Your task to perform on an android device: turn off notifications in google photos Image 0: 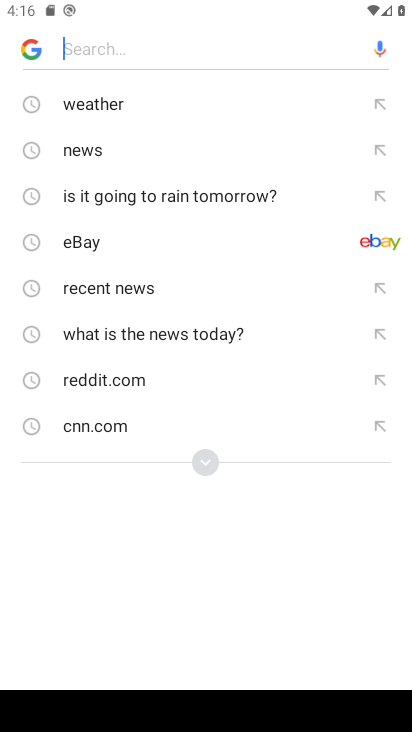
Step 0: press back button
Your task to perform on an android device: turn off notifications in google photos Image 1: 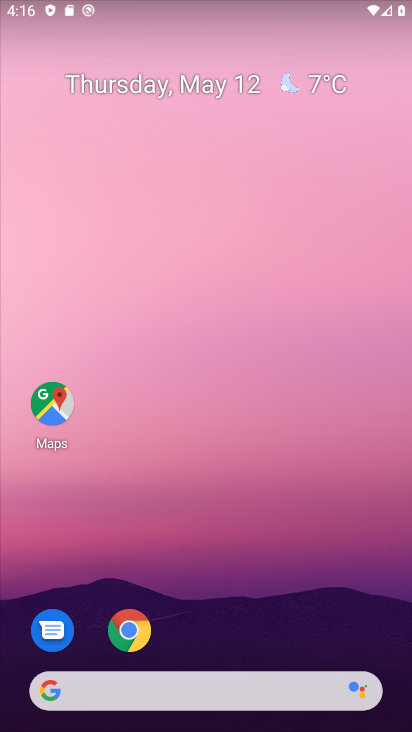
Step 1: drag from (180, 659) to (371, 57)
Your task to perform on an android device: turn off notifications in google photos Image 2: 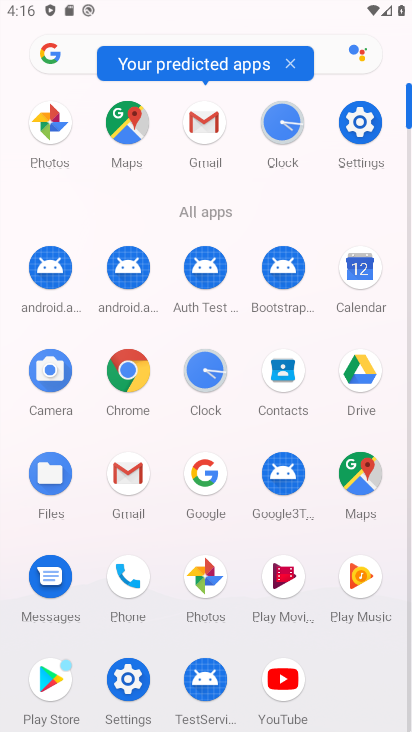
Step 2: click (195, 582)
Your task to perform on an android device: turn off notifications in google photos Image 3: 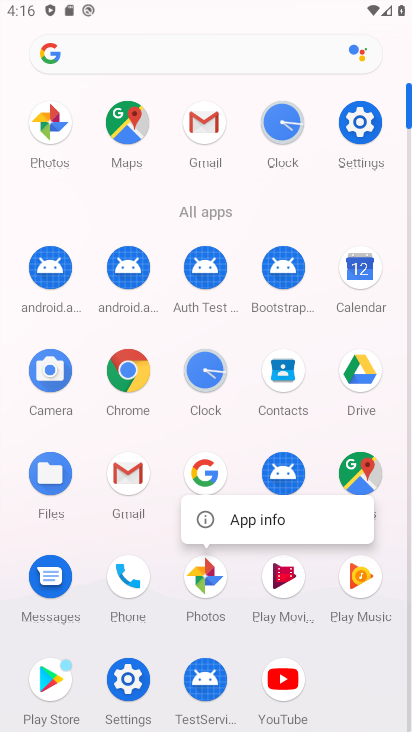
Step 3: click (200, 580)
Your task to perform on an android device: turn off notifications in google photos Image 4: 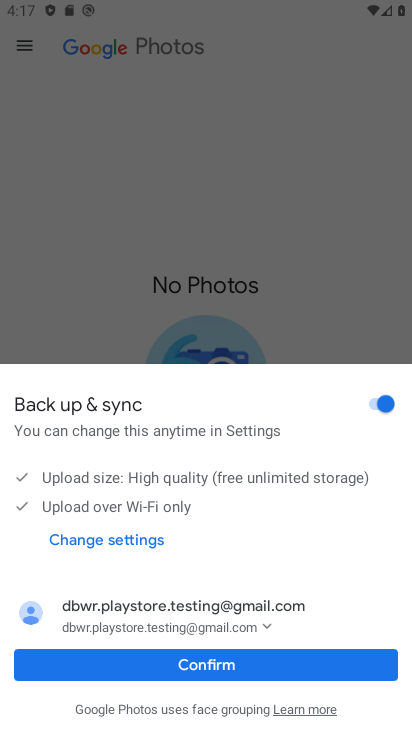
Step 4: click (259, 659)
Your task to perform on an android device: turn off notifications in google photos Image 5: 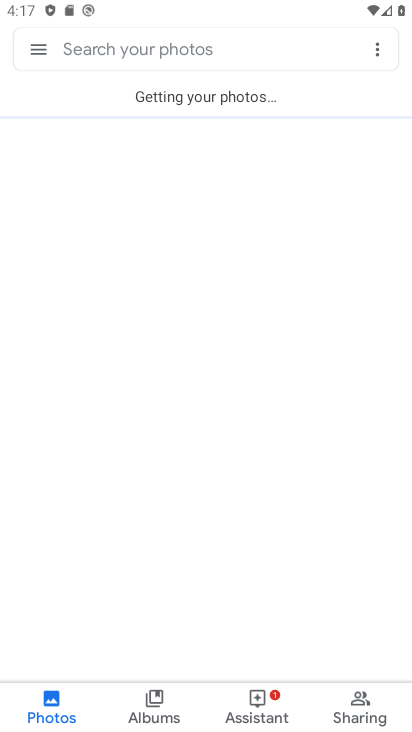
Step 5: click (35, 49)
Your task to perform on an android device: turn off notifications in google photos Image 6: 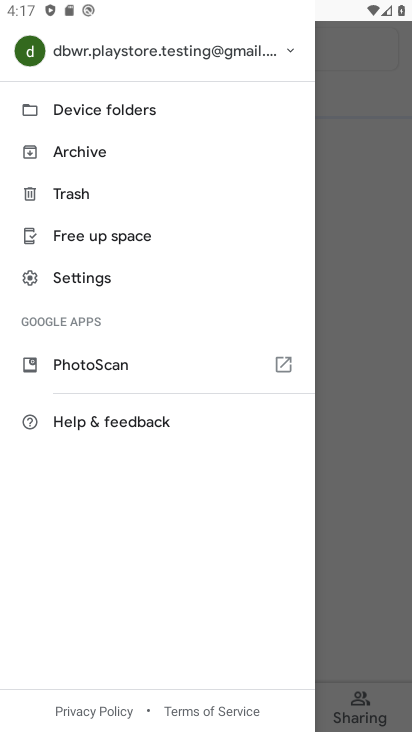
Step 6: click (121, 296)
Your task to perform on an android device: turn off notifications in google photos Image 7: 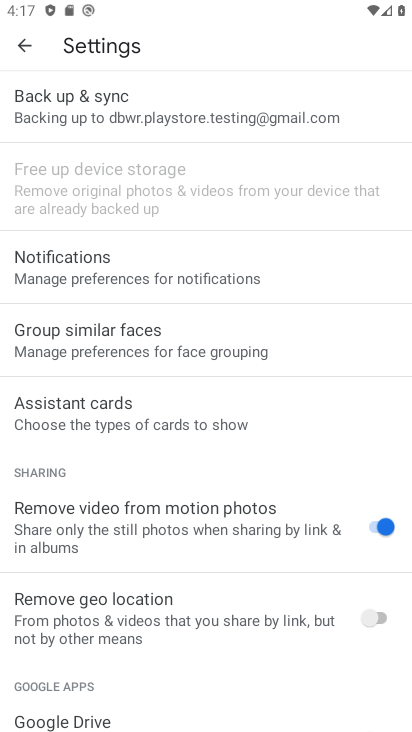
Step 7: click (23, 48)
Your task to perform on an android device: turn off notifications in google photos Image 8: 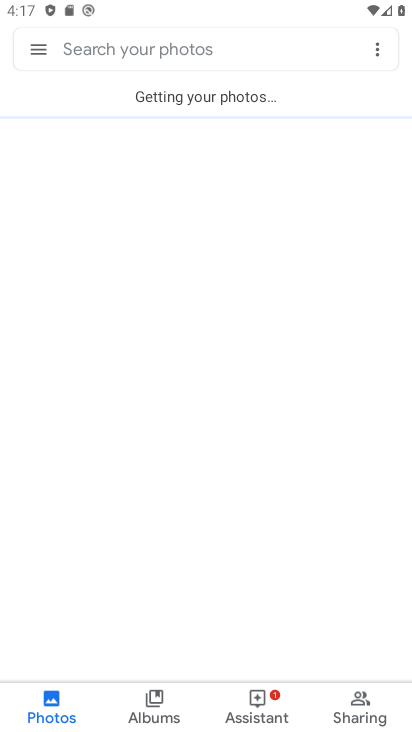
Step 8: click (44, 58)
Your task to perform on an android device: turn off notifications in google photos Image 9: 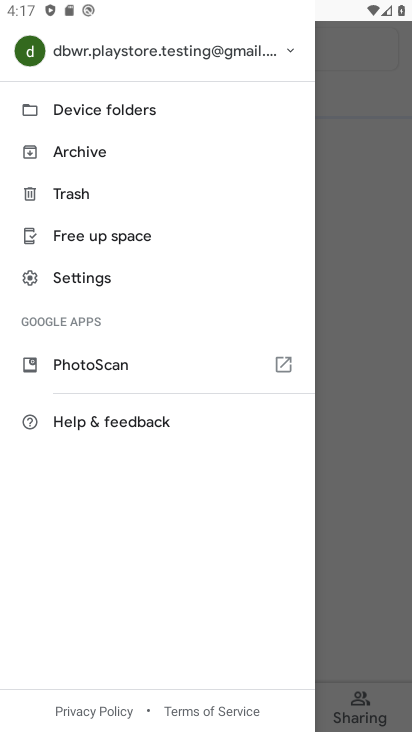
Step 9: click (111, 282)
Your task to perform on an android device: turn off notifications in google photos Image 10: 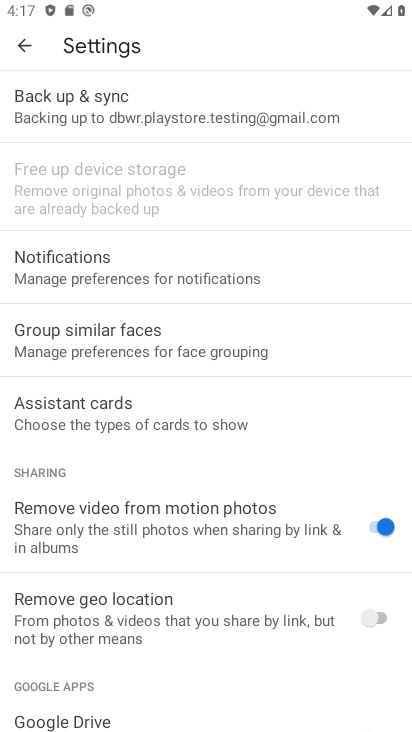
Step 10: click (138, 270)
Your task to perform on an android device: turn off notifications in google photos Image 11: 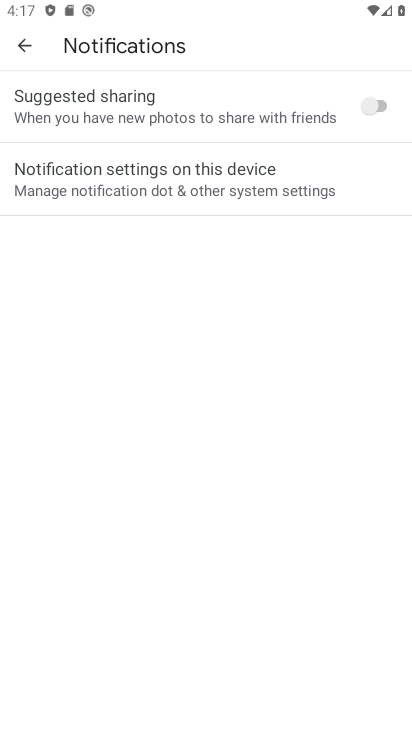
Step 11: click (251, 190)
Your task to perform on an android device: turn off notifications in google photos Image 12: 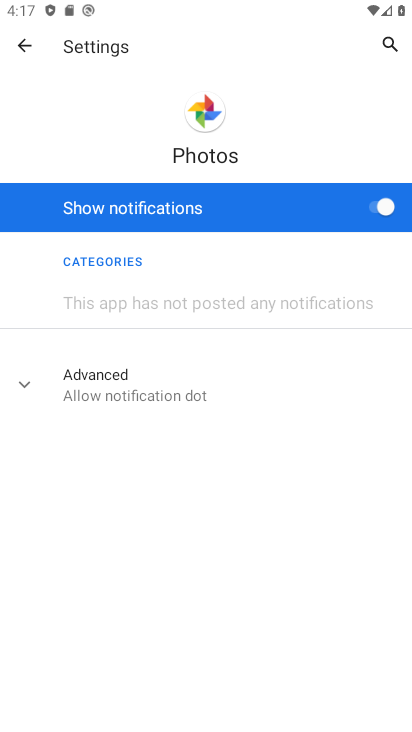
Step 12: click (367, 205)
Your task to perform on an android device: turn off notifications in google photos Image 13: 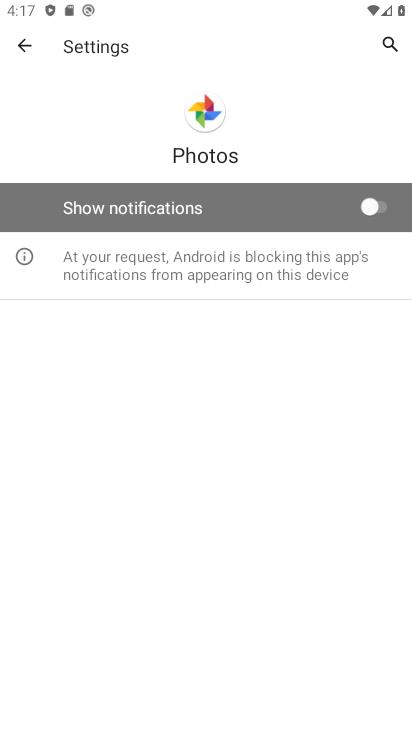
Step 13: task complete